Your task to perform on an android device: turn on priority inbox in the gmail app Image 0: 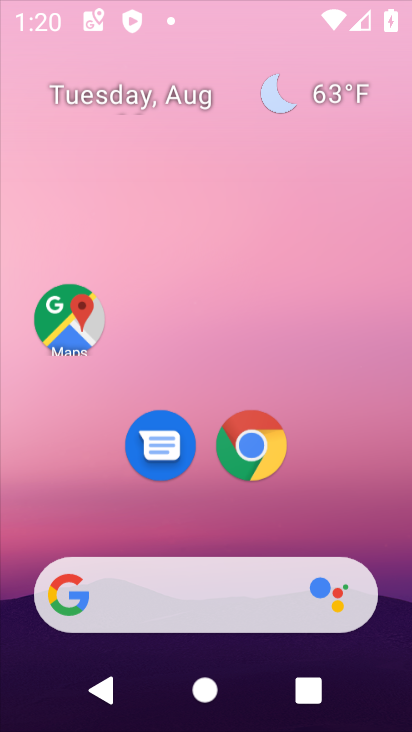
Step 0: press home button
Your task to perform on an android device: turn on priority inbox in the gmail app Image 1: 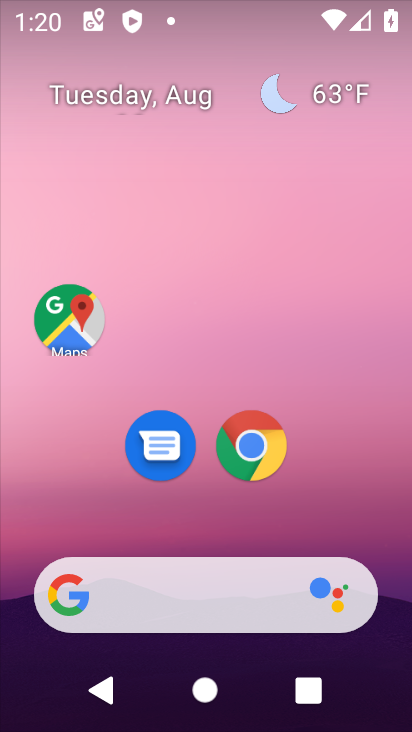
Step 1: press home button
Your task to perform on an android device: turn on priority inbox in the gmail app Image 2: 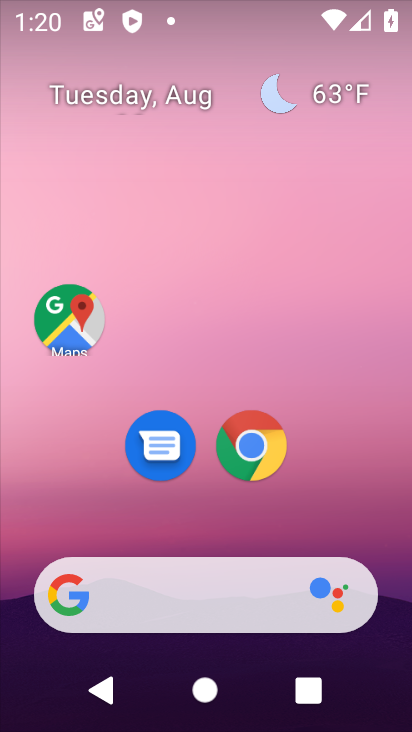
Step 2: drag from (203, 529) to (219, 75)
Your task to perform on an android device: turn on priority inbox in the gmail app Image 3: 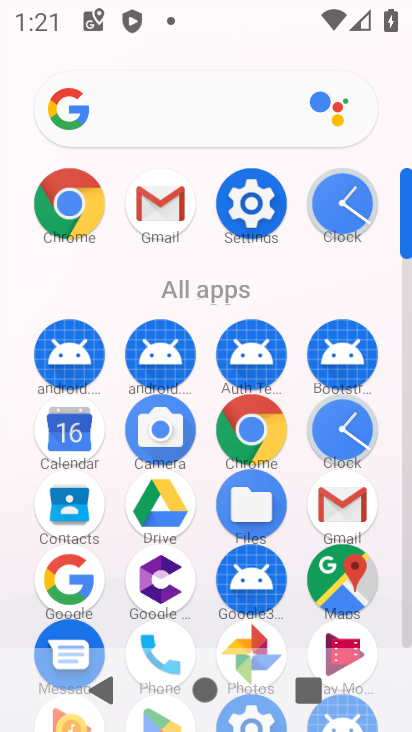
Step 3: click (339, 493)
Your task to perform on an android device: turn on priority inbox in the gmail app Image 4: 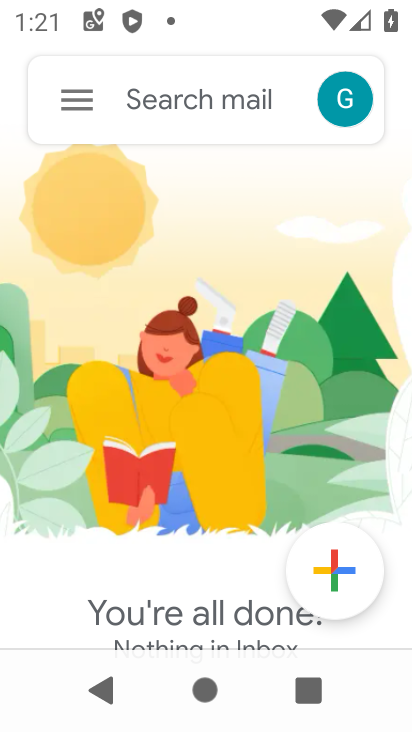
Step 4: click (68, 99)
Your task to perform on an android device: turn on priority inbox in the gmail app Image 5: 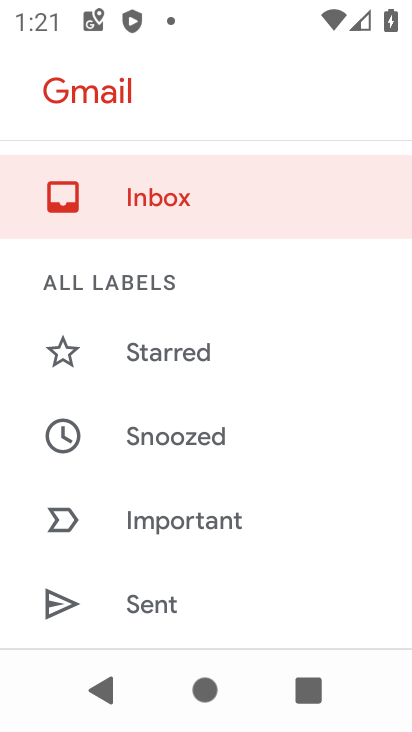
Step 5: drag from (190, 613) to (213, 105)
Your task to perform on an android device: turn on priority inbox in the gmail app Image 6: 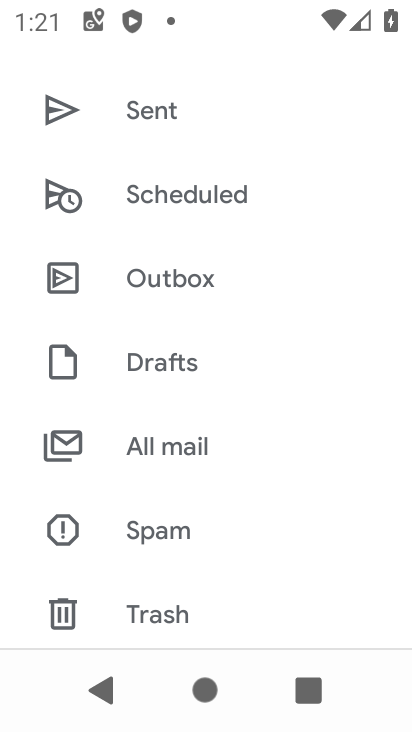
Step 6: drag from (223, 619) to (212, 97)
Your task to perform on an android device: turn on priority inbox in the gmail app Image 7: 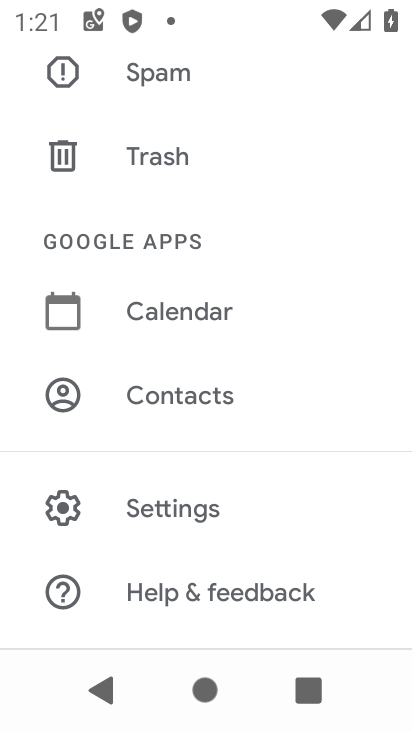
Step 7: click (233, 512)
Your task to perform on an android device: turn on priority inbox in the gmail app Image 8: 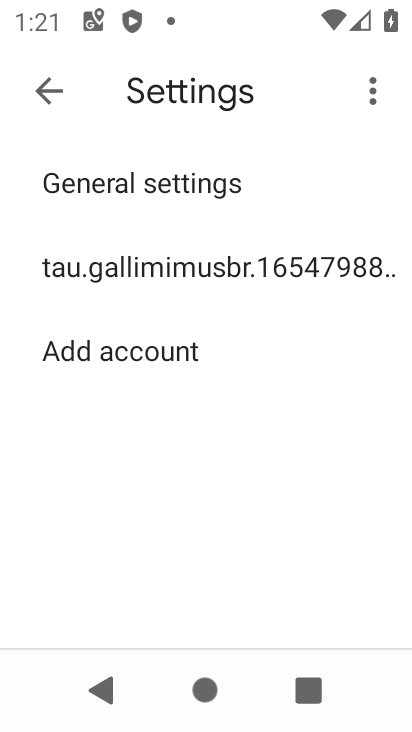
Step 8: click (171, 267)
Your task to perform on an android device: turn on priority inbox in the gmail app Image 9: 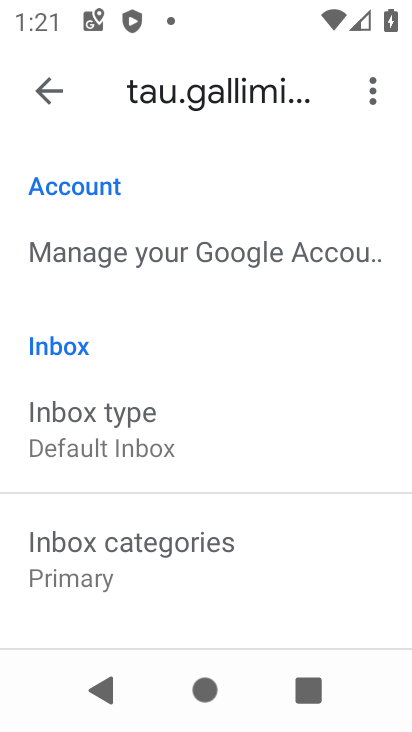
Step 9: click (179, 434)
Your task to perform on an android device: turn on priority inbox in the gmail app Image 10: 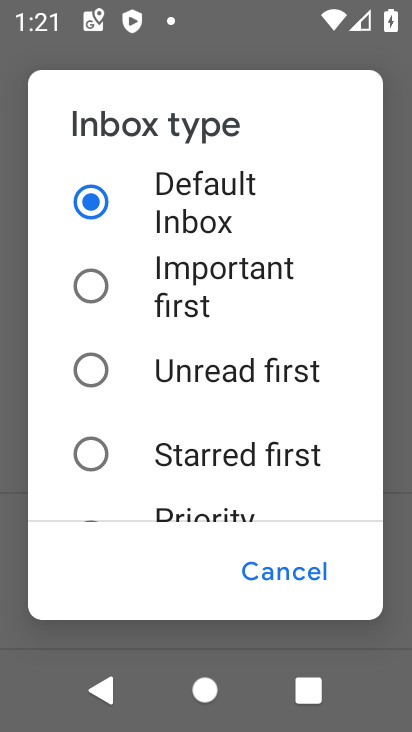
Step 10: drag from (112, 472) to (143, 181)
Your task to perform on an android device: turn on priority inbox in the gmail app Image 11: 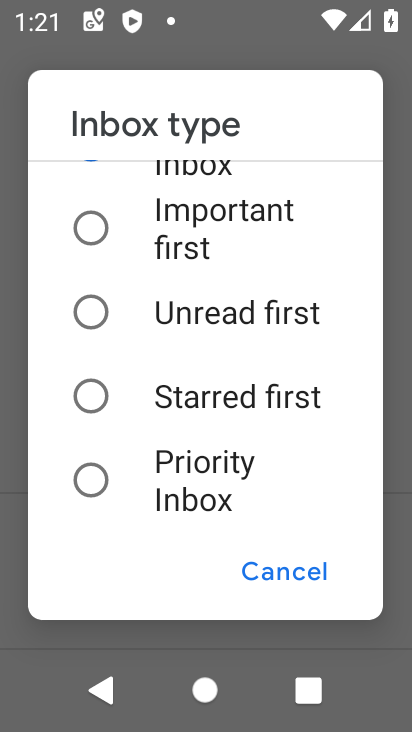
Step 11: click (95, 473)
Your task to perform on an android device: turn on priority inbox in the gmail app Image 12: 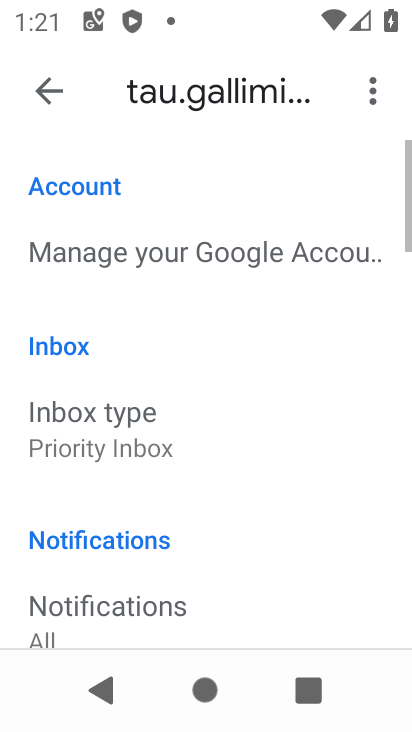
Step 12: task complete